Your task to perform on an android device: see sites visited before in the chrome app Image 0: 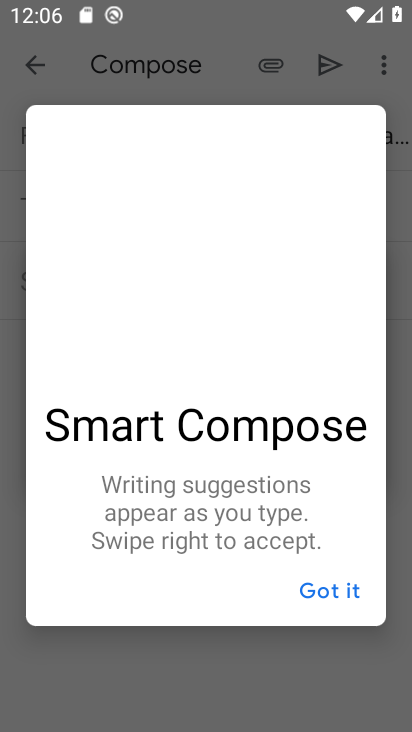
Step 0: drag from (382, 579) to (361, 259)
Your task to perform on an android device: see sites visited before in the chrome app Image 1: 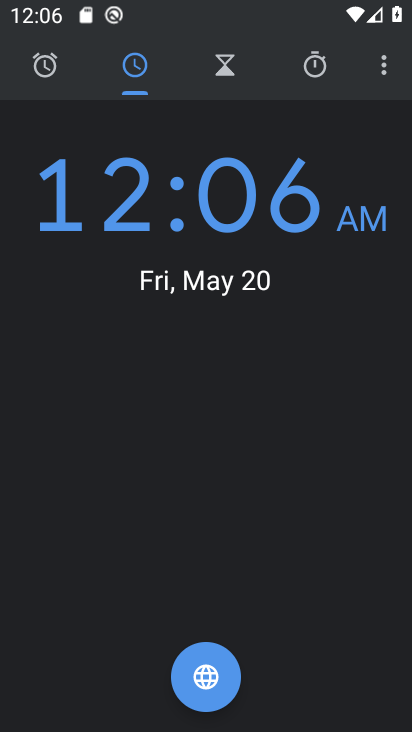
Step 1: press home button
Your task to perform on an android device: see sites visited before in the chrome app Image 2: 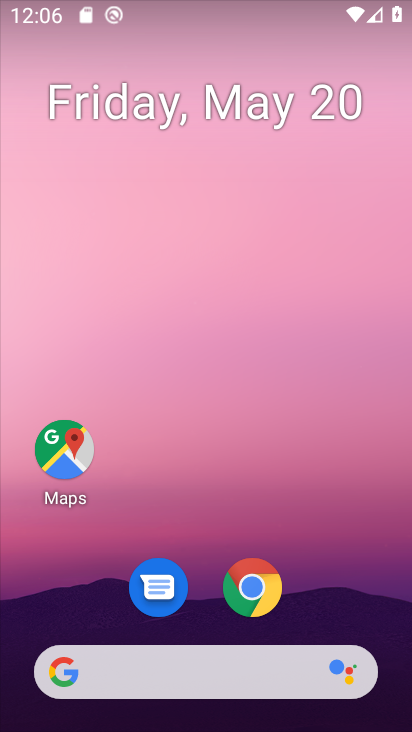
Step 2: drag from (345, 603) to (345, 231)
Your task to perform on an android device: see sites visited before in the chrome app Image 3: 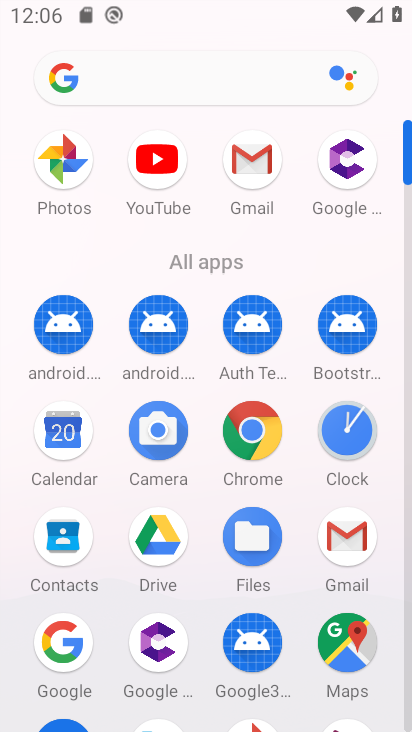
Step 3: click (269, 446)
Your task to perform on an android device: see sites visited before in the chrome app Image 4: 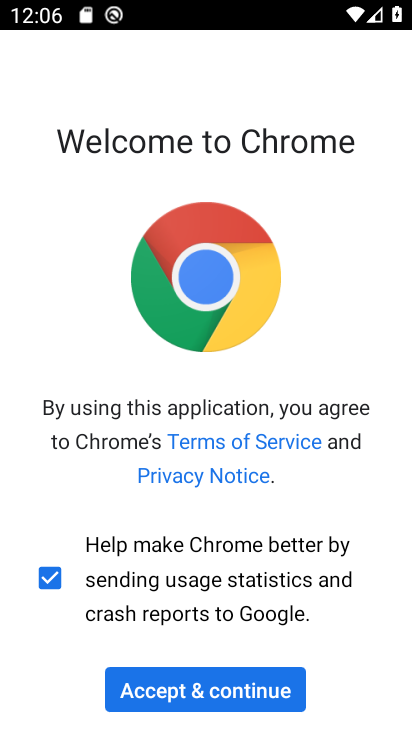
Step 4: click (256, 695)
Your task to perform on an android device: see sites visited before in the chrome app Image 5: 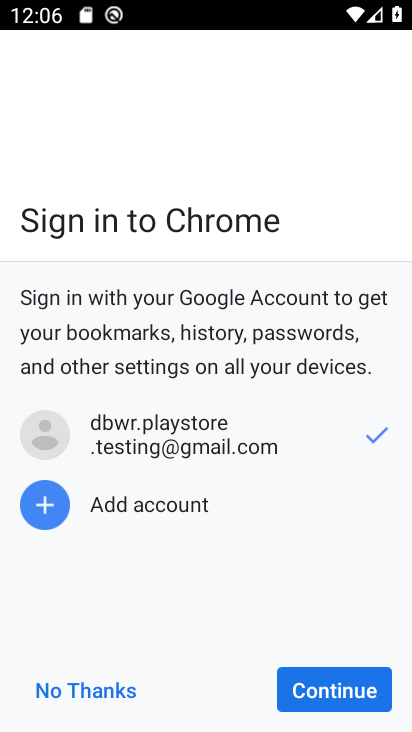
Step 5: click (321, 699)
Your task to perform on an android device: see sites visited before in the chrome app Image 6: 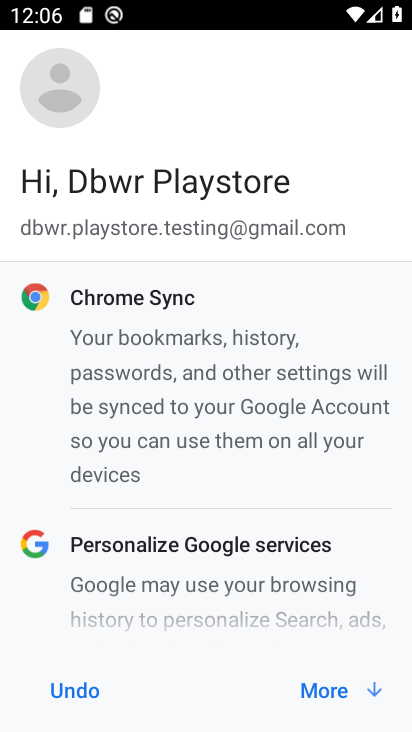
Step 6: click (322, 700)
Your task to perform on an android device: see sites visited before in the chrome app Image 7: 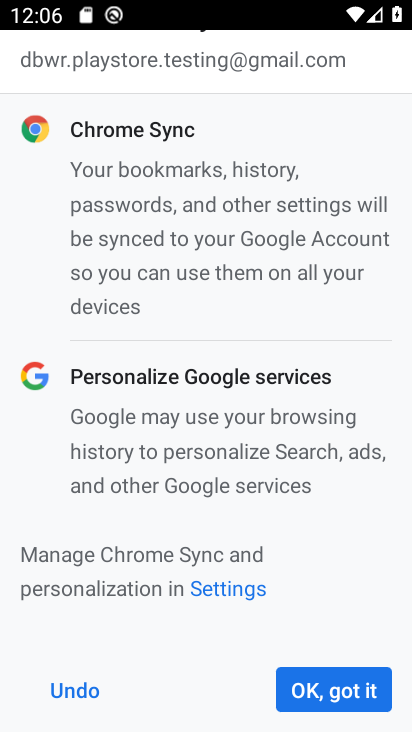
Step 7: click (323, 699)
Your task to perform on an android device: see sites visited before in the chrome app Image 8: 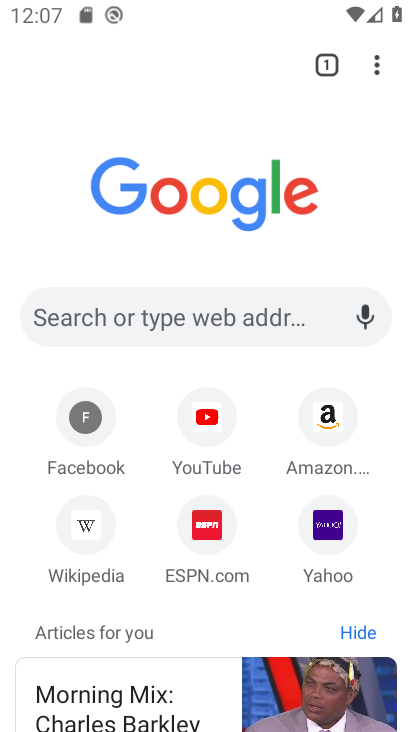
Step 8: click (377, 73)
Your task to perform on an android device: see sites visited before in the chrome app Image 9: 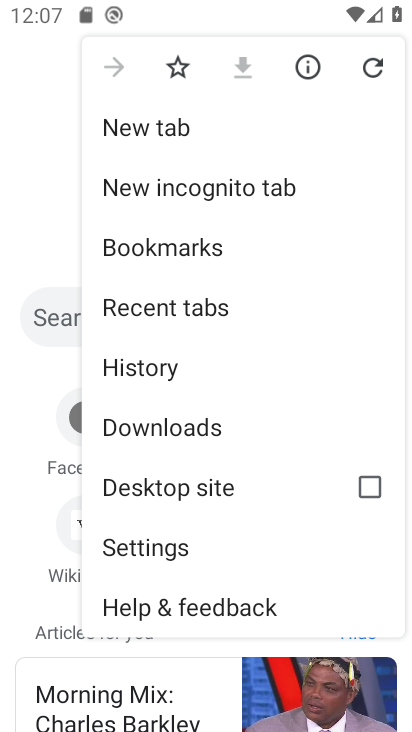
Step 9: drag from (294, 470) to (306, 336)
Your task to perform on an android device: see sites visited before in the chrome app Image 10: 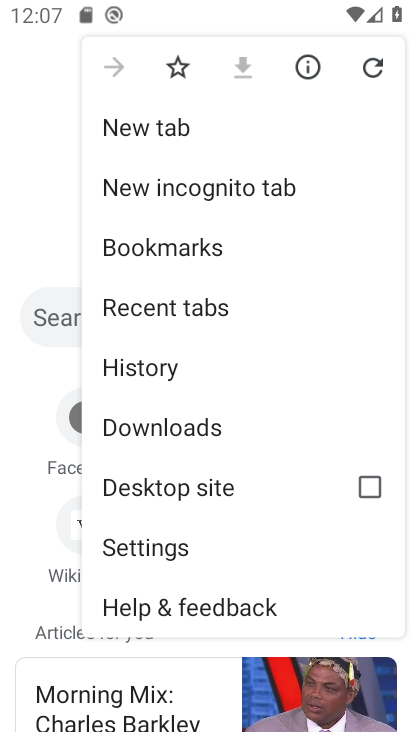
Step 10: click (182, 373)
Your task to perform on an android device: see sites visited before in the chrome app Image 11: 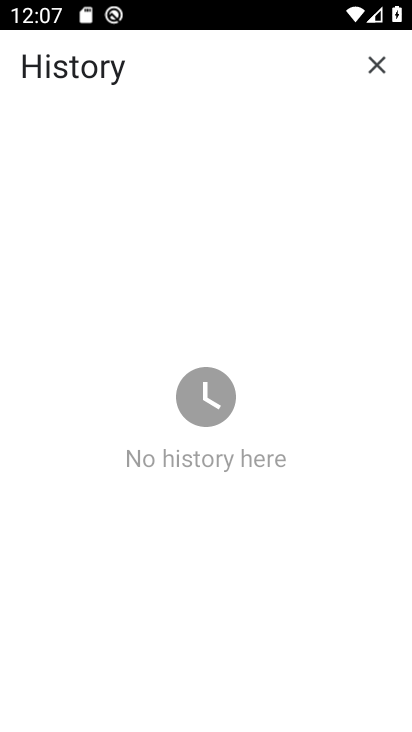
Step 11: task complete